Your task to perform on an android device: toggle notification dots Image 0: 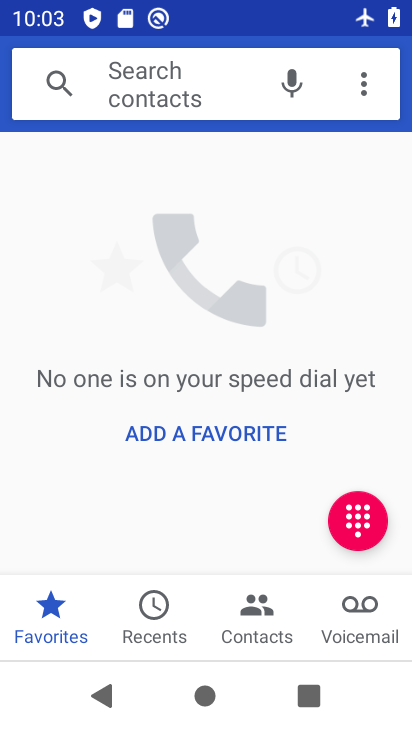
Step 0: drag from (246, 544) to (283, 400)
Your task to perform on an android device: toggle notification dots Image 1: 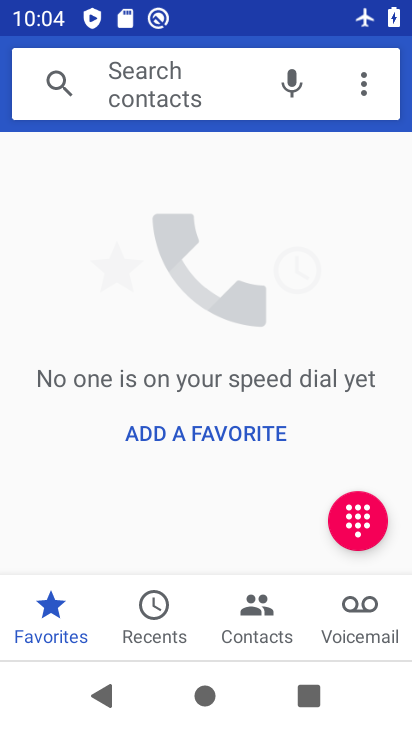
Step 1: drag from (202, 510) to (239, 439)
Your task to perform on an android device: toggle notification dots Image 2: 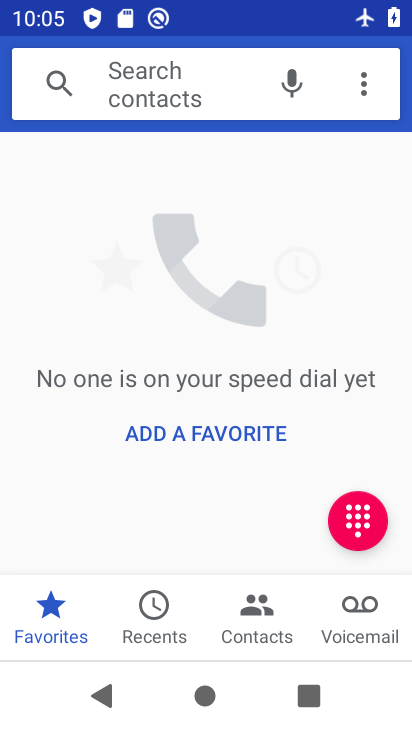
Step 2: drag from (190, 623) to (265, 328)
Your task to perform on an android device: toggle notification dots Image 3: 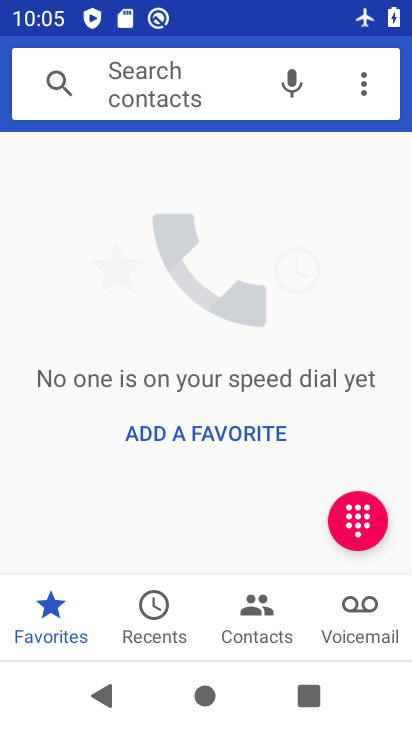
Step 3: press home button
Your task to perform on an android device: toggle notification dots Image 4: 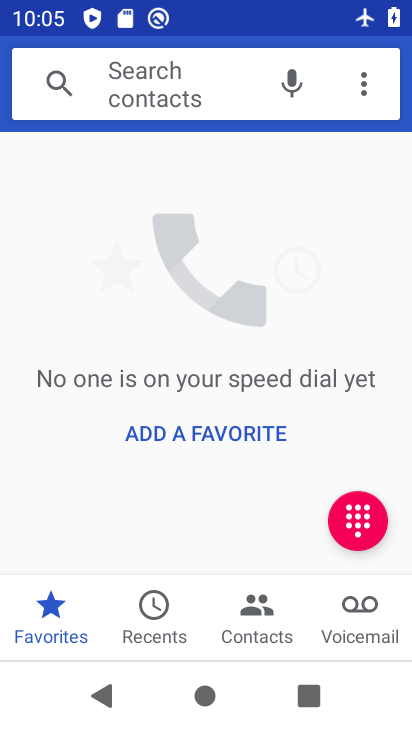
Step 4: press home button
Your task to perform on an android device: toggle notification dots Image 5: 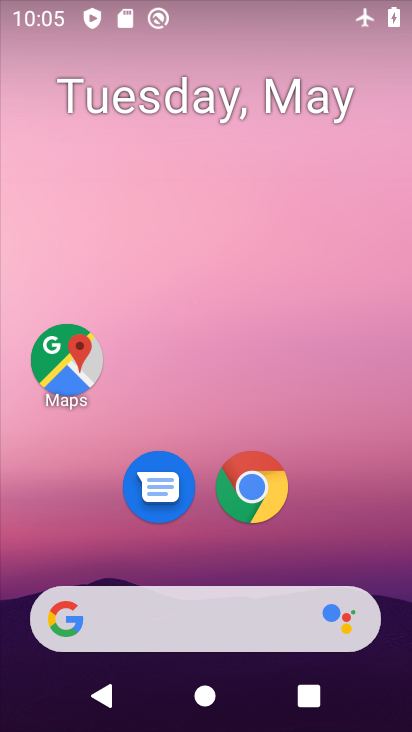
Step 5: drag from (211, 530) to (377, 81)
Your task to perform on an android device: toggle notification dots Image 6: 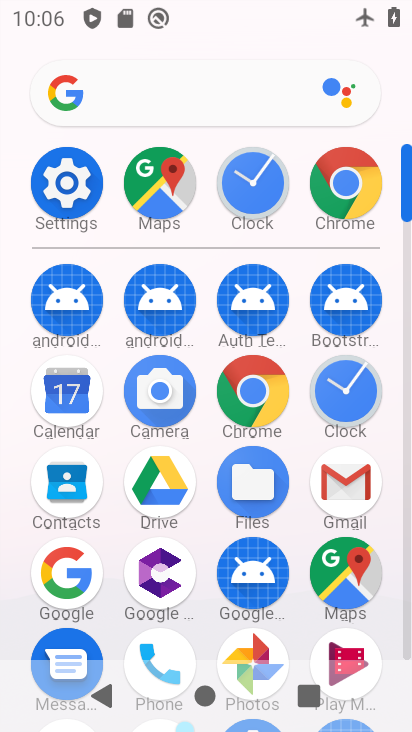
Step 6: click (79, 204)
Your task to perform on an android device: toggle notification dots Image 7: 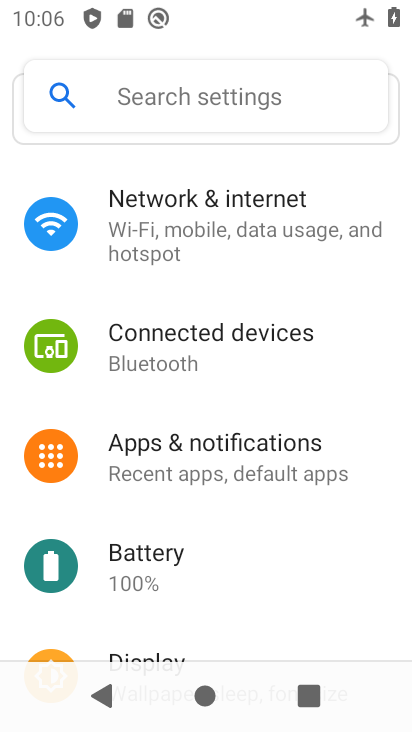
Step 7: click (226, 447)
Your task to perform on an android device: toggle notification dots Image 8: 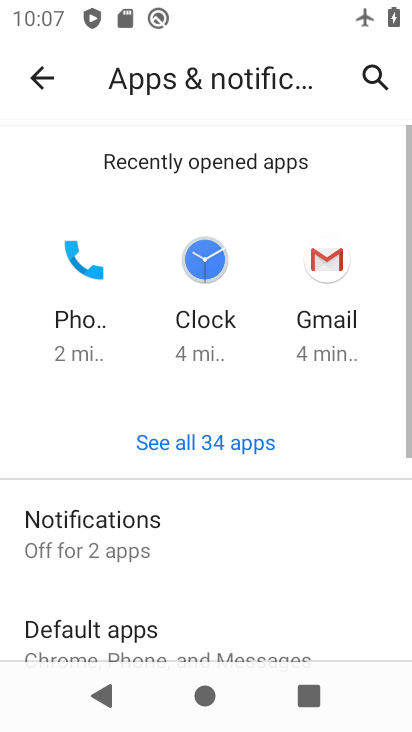
Step 8: click (171, 522)
Your task to perform on an android device: toggle notification dots Image 9: 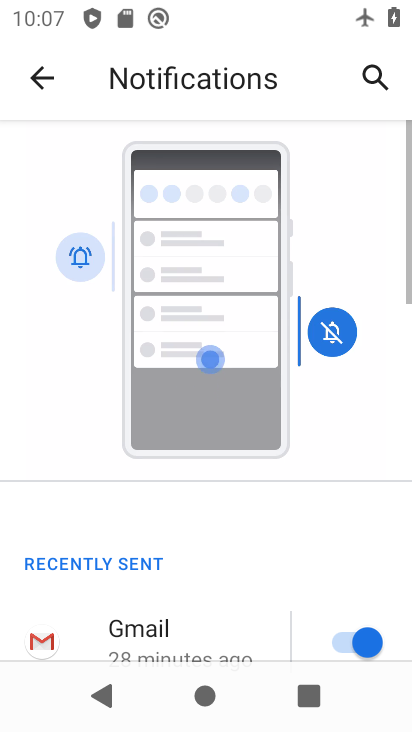
Step 9: drag from (220, 563) to (366, 108)
Your task to perform on an android device: toggle notification dots Image 10: 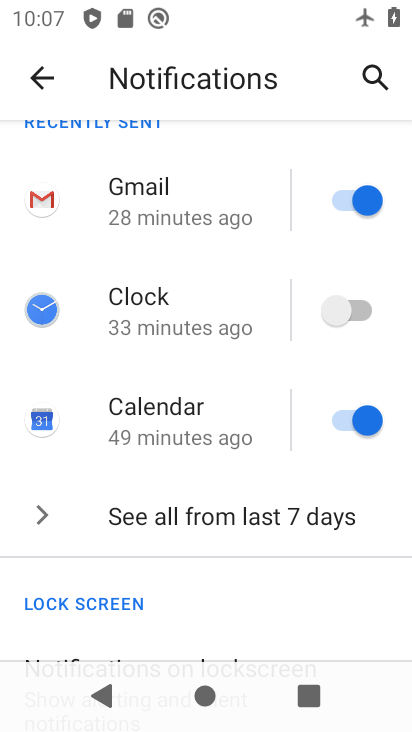
Step 10: drag from (205, 555) to (411, 10)
Your task to perform on an android device: toggle notification dots Image 11: 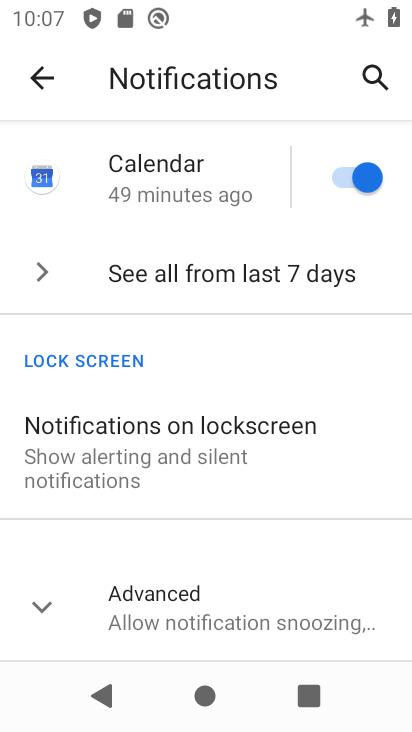
Step 11: click (121, 589)
Your task to perform on an android device: toggle notification dots Image 12: 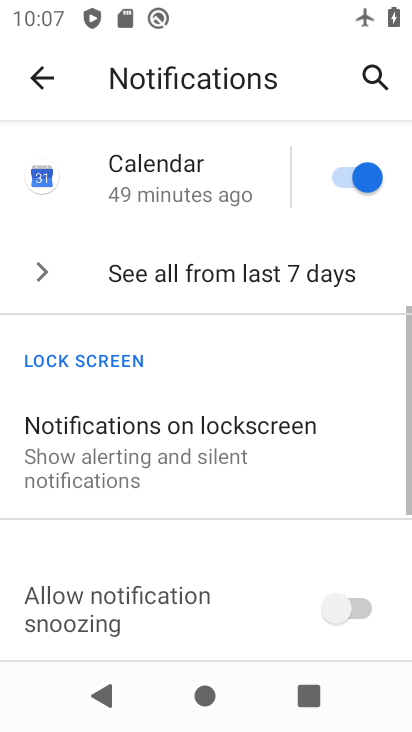
Step 12: drag from (133, 573) to (331, 102)
Your task to perform on an android device: toggle notification dots Image 13: 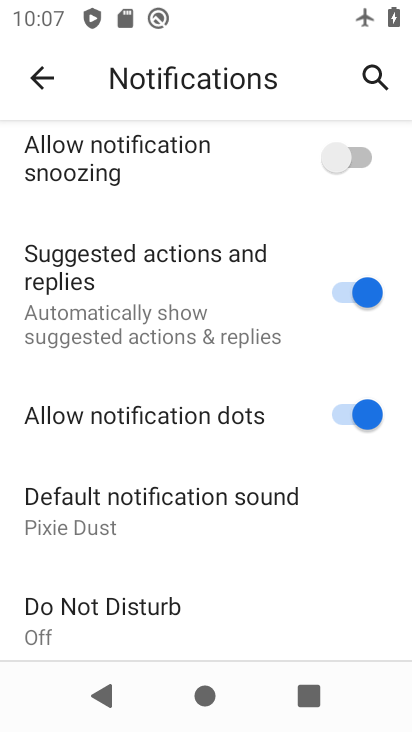
Step 13: click (360, 412)
Your task to perform on an android device: toggle notification dots Image 14: 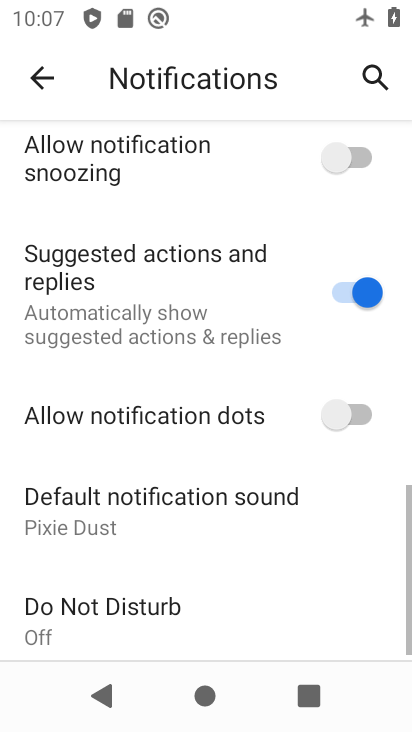
Step 14: task complete